Your task to perform on an android device: change the clock style Image 0: 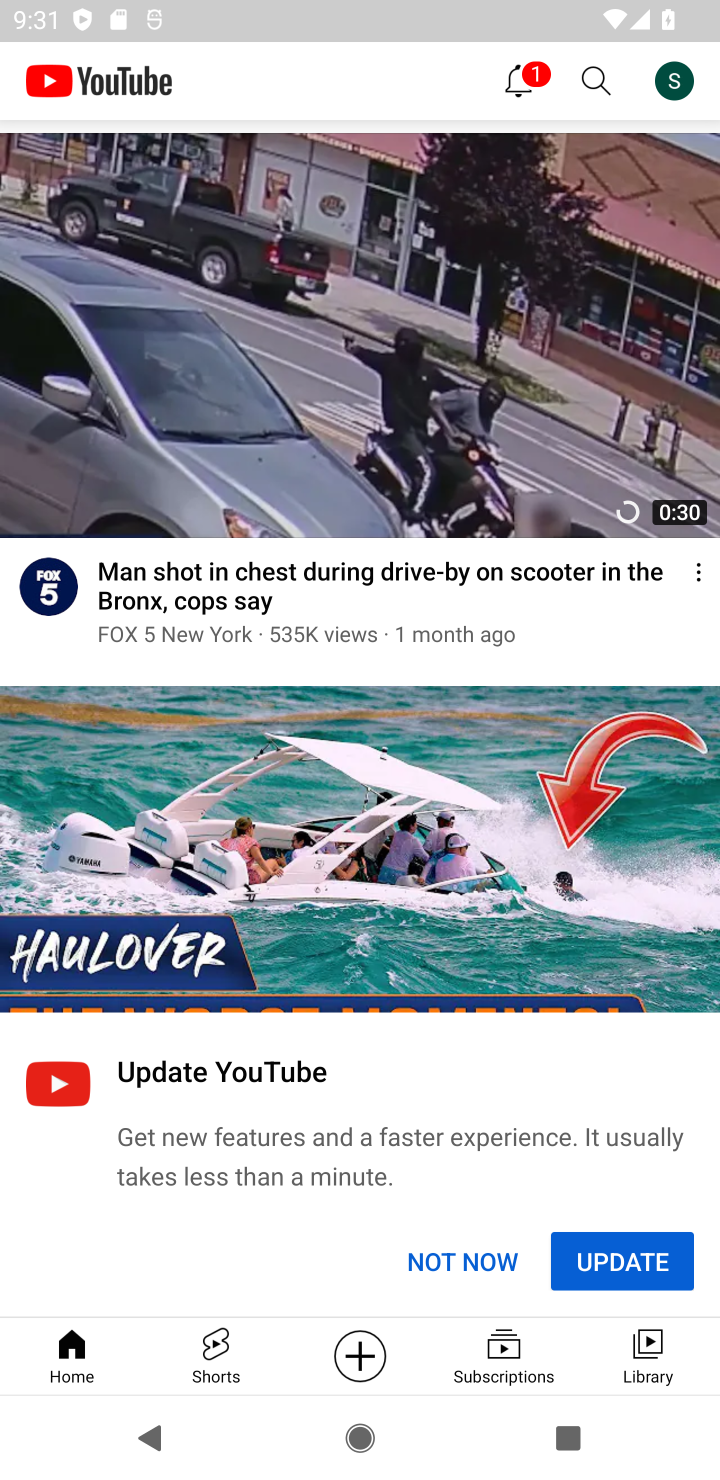
Step 0: press back button
Your task to perform on an android device: change the clock style Image 1: 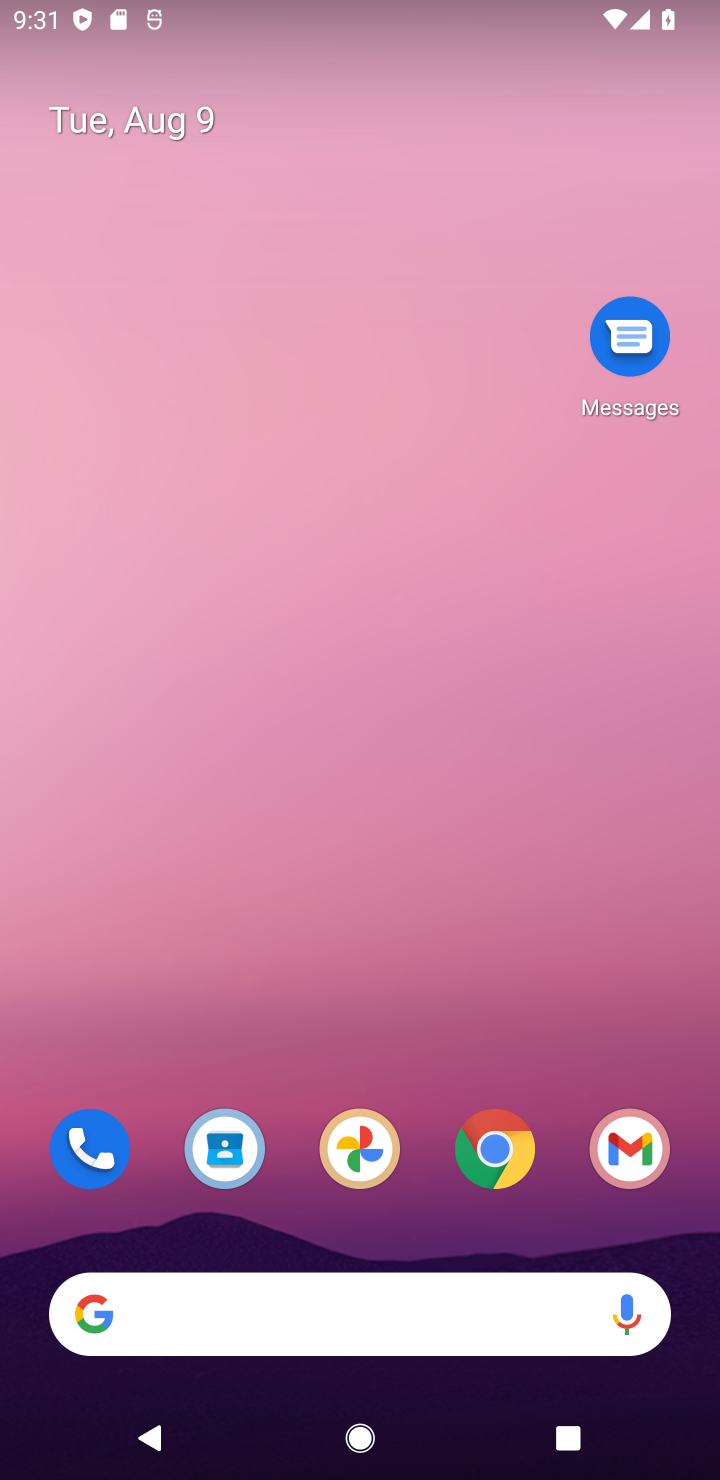
Step 1: drag from (309, 1257) to (491, 92)
Your task to perform on an android device: change the clock style Image 2: 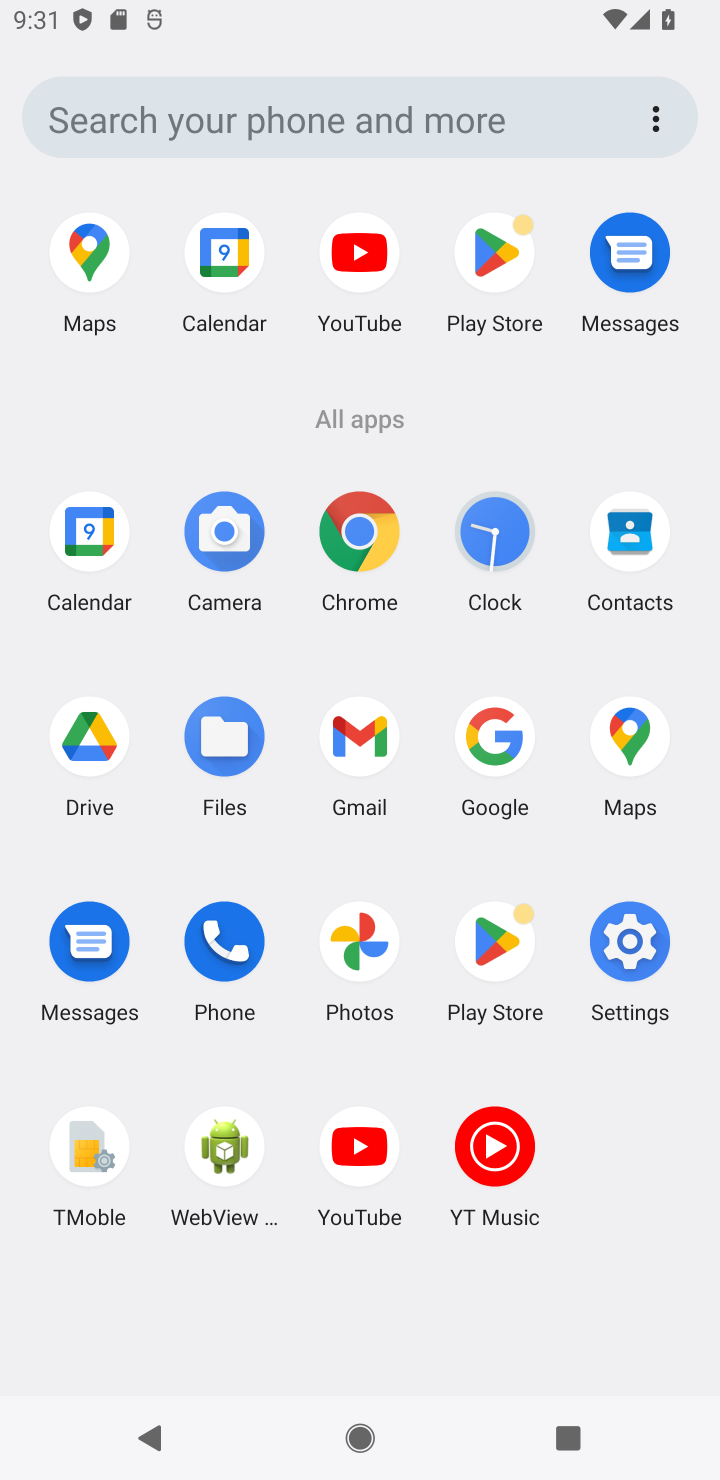
Step 2: click (465, 537)
Your task to perform on an android device: change the clock style Image 3: 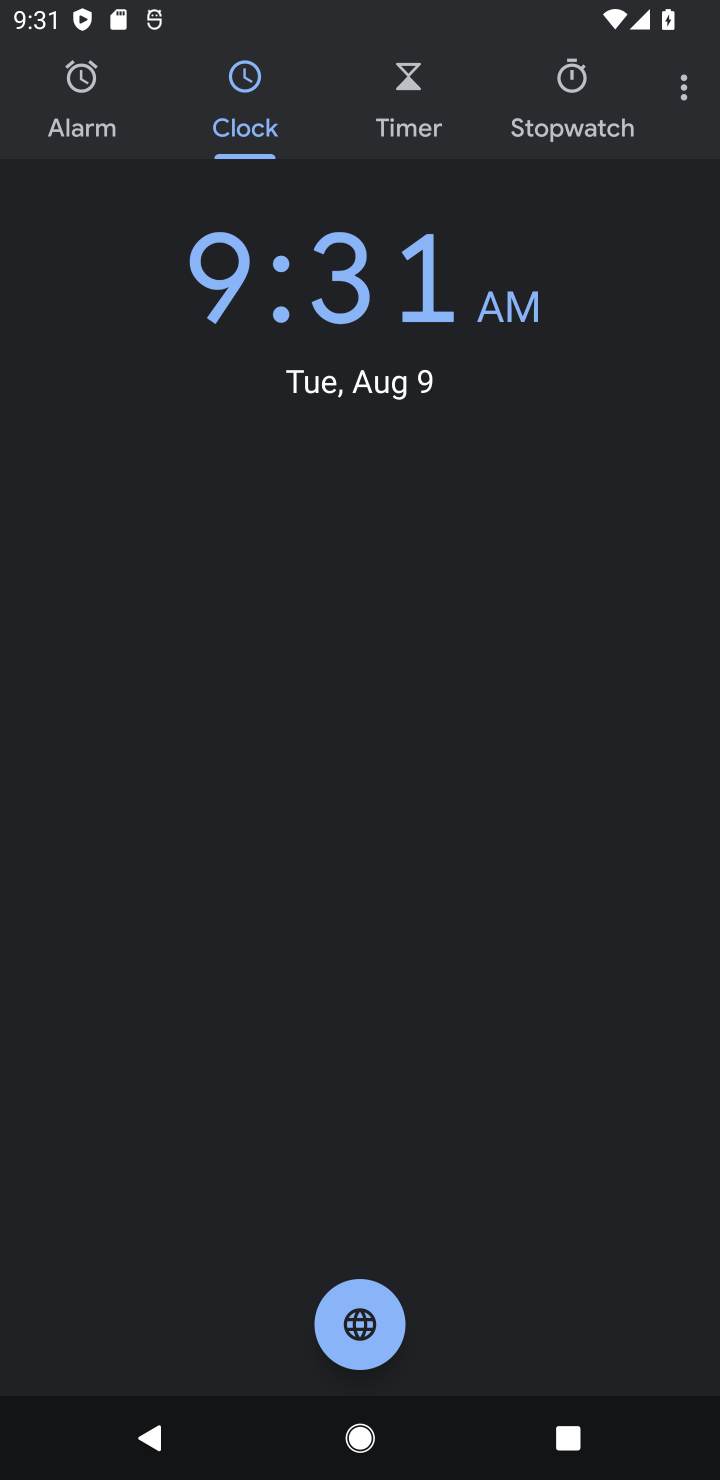
Step 3: click (681, 75)
Your task to perform on an android device: change the clock style Image 4: 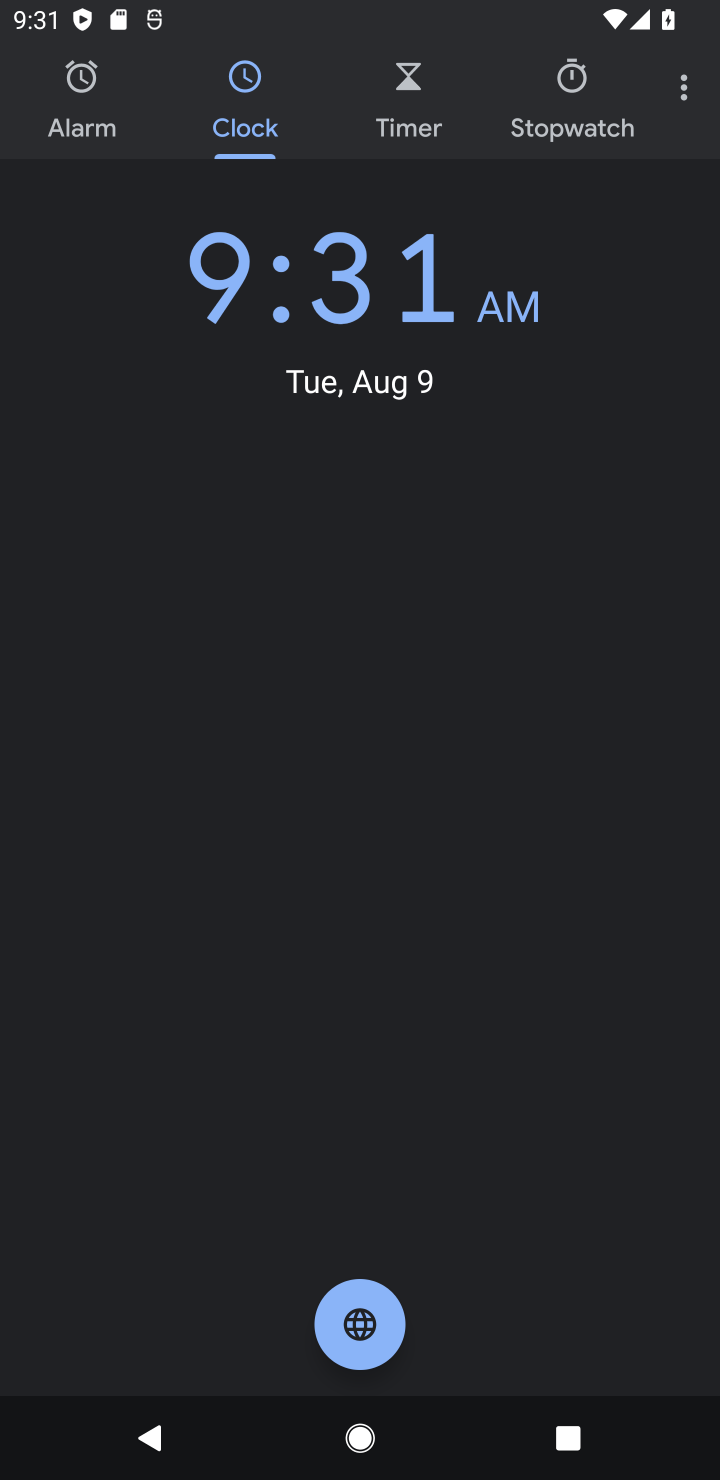
Step 4: click (689, 85)
Your task to perform on an android device: change the clock style Image 5: 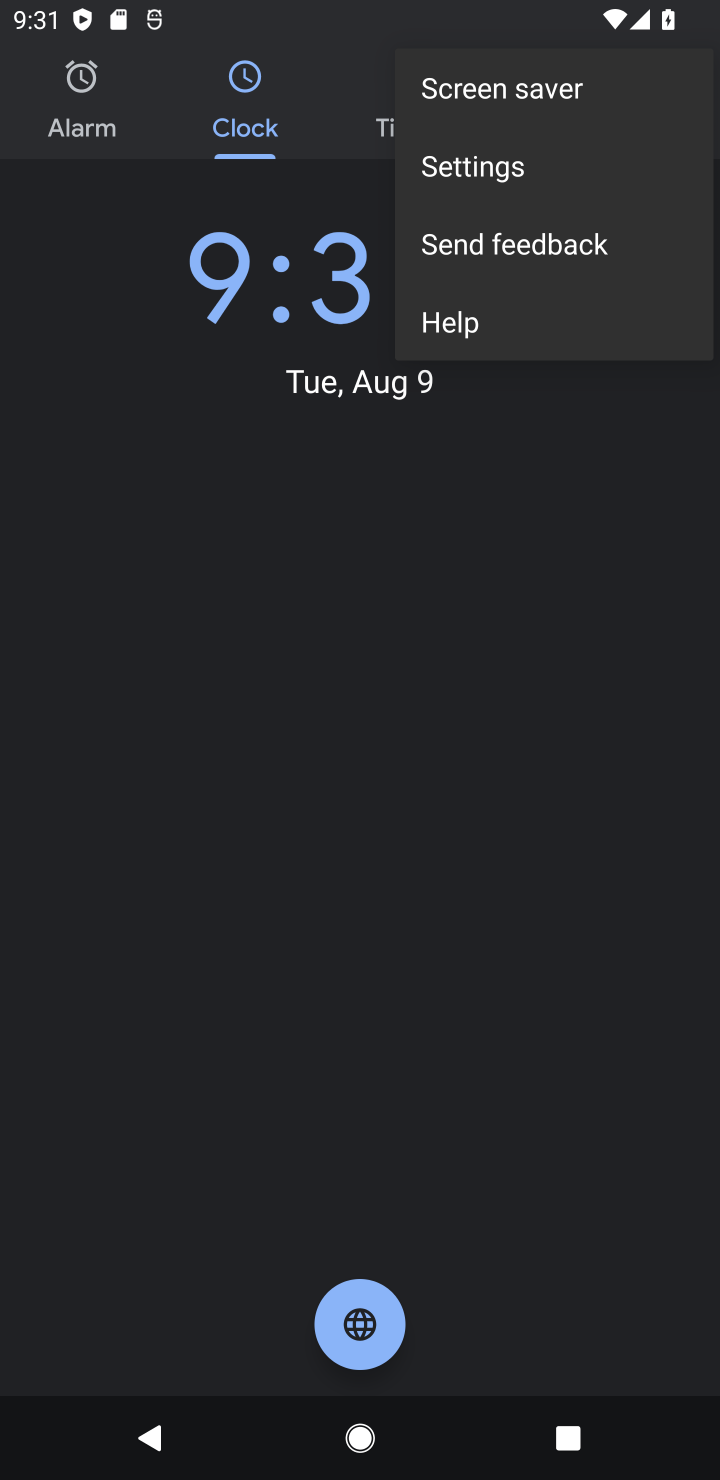
Step 5: click (479, 178)
Your task to perform on an android device: change the clock style Image 6: 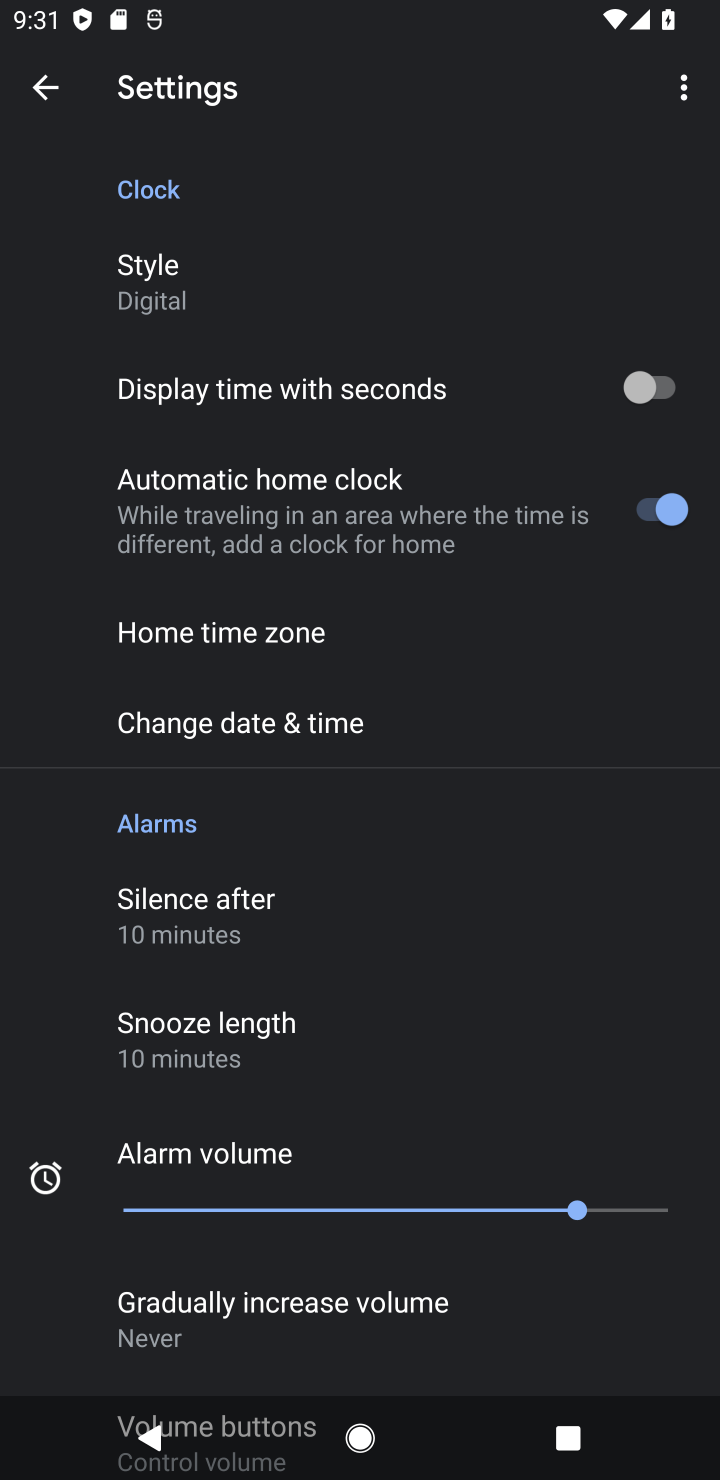
Step 6: click (195, 268)
Your task to perform on an android device: change the clock style Image 7: 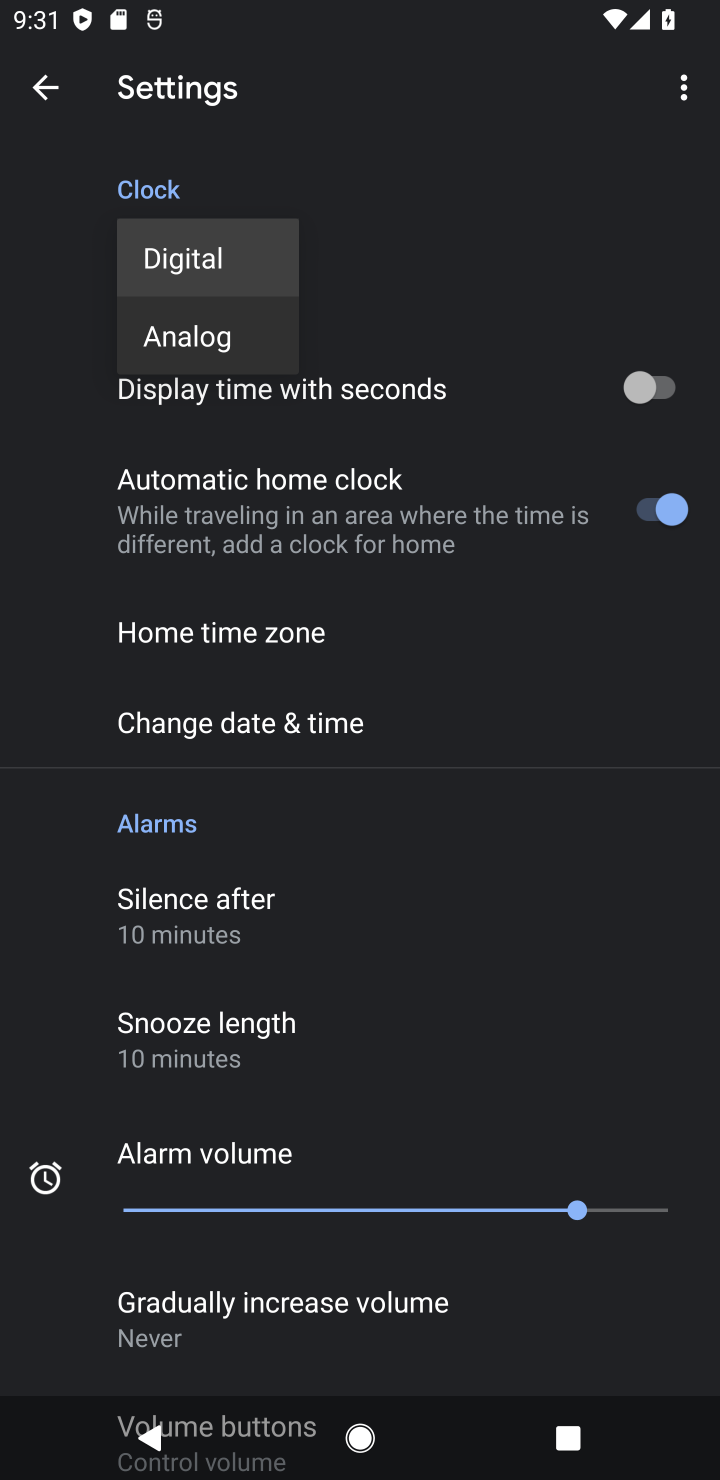
Step 7: click (214, 349)
Your task to perform on an android device: change the clock style Image 8: 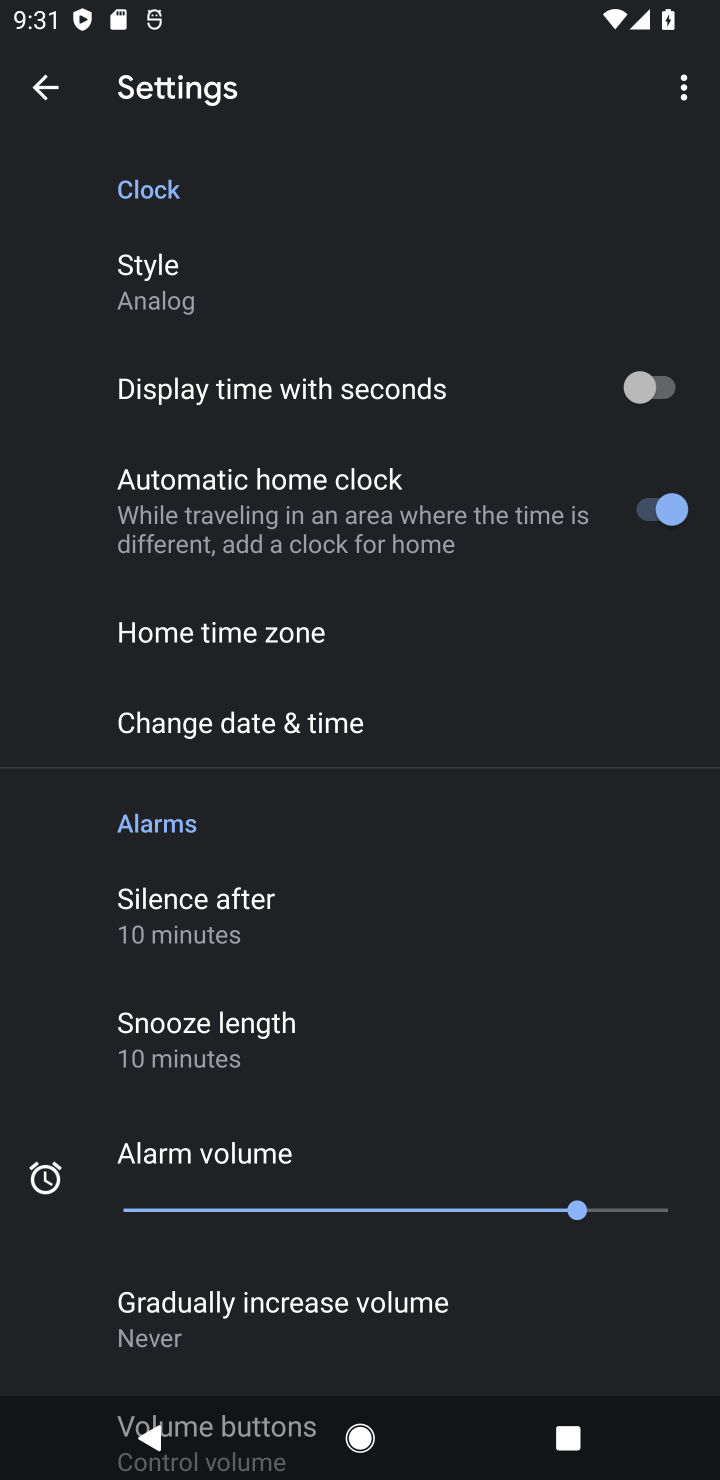
Step 8: task complete